Your task to perform on an android device: Open the phone app and click the voicemail tab. Image 0: 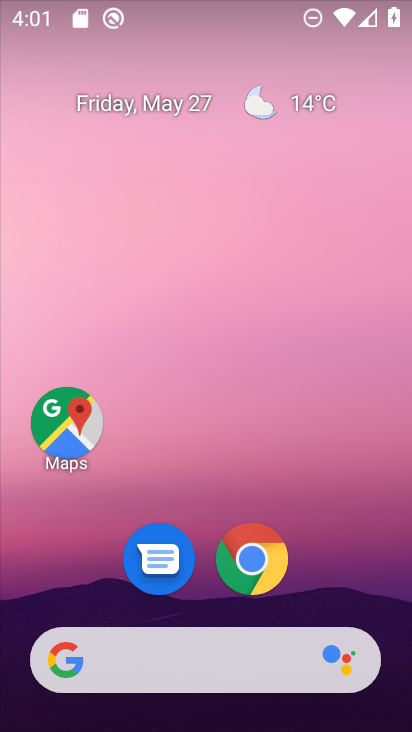
Step 0: drag from (155, 672) to (405, 582)
Your task to perform on an android device: Open the phone app and click the voicemail tab. Image 1: 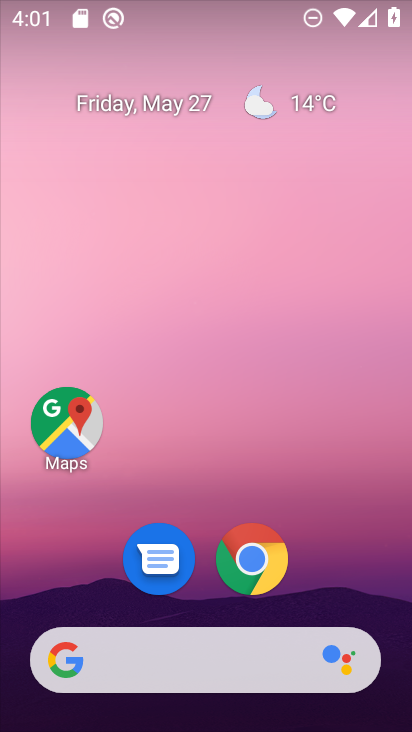
Step 1: drag from (207, 647) to (346, 4)
Your task to perform on an android device: Open the phone app and click the voicemail tab. Image 2: 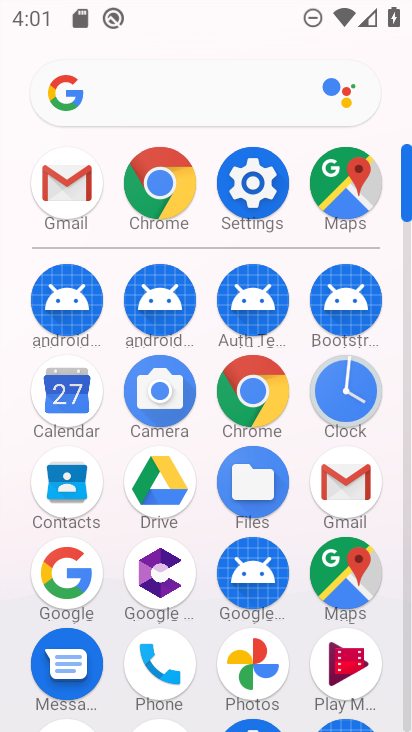
Step 2: click (165, 655)
Your task to perform on an android device: Open the phone app and click the voicemail tab. Image 3: 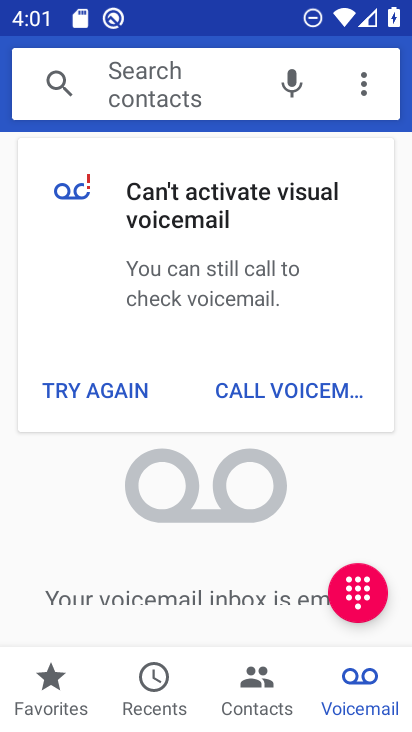
Step 3: task complete